Your task to perform on an android device: remove spam from my inbox in the gmail app Image 0: 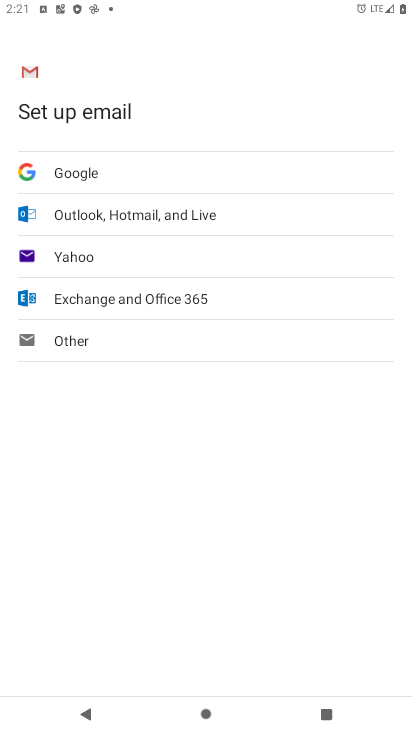
Step 0: press home button
Your task to perform on an android device: remove spam from my inbox in the gmail app Image 1: 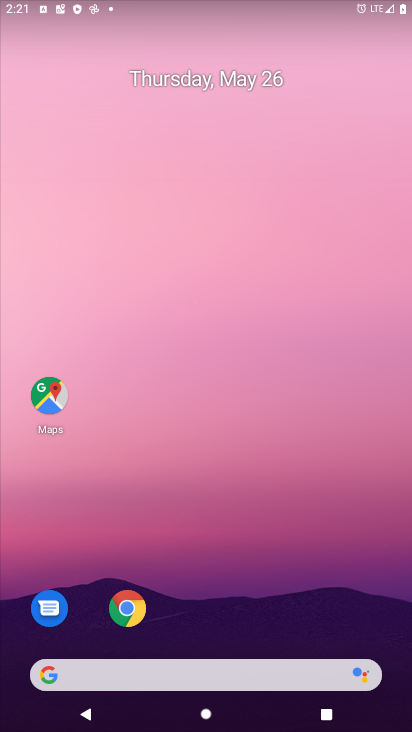
Step 1: drag from (395, 622) to (323, 56)
Your task to perform on an android device: remove spam from my inbox in the gmail app Image 2: 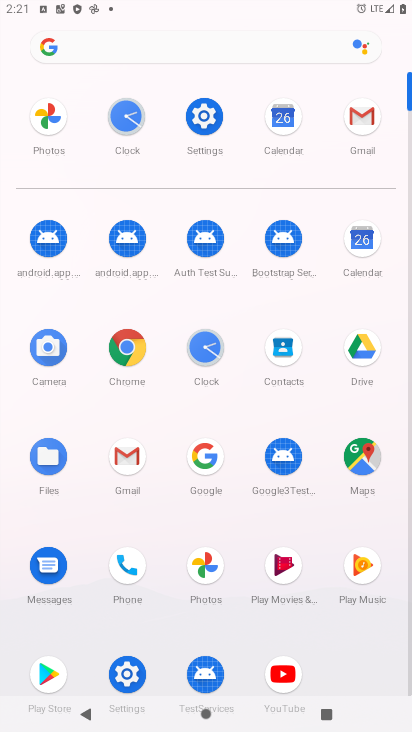
Step 2: click (125, 452)
Your task to perform on an android device: remove spam from my inbox in the gmail app Image 3: 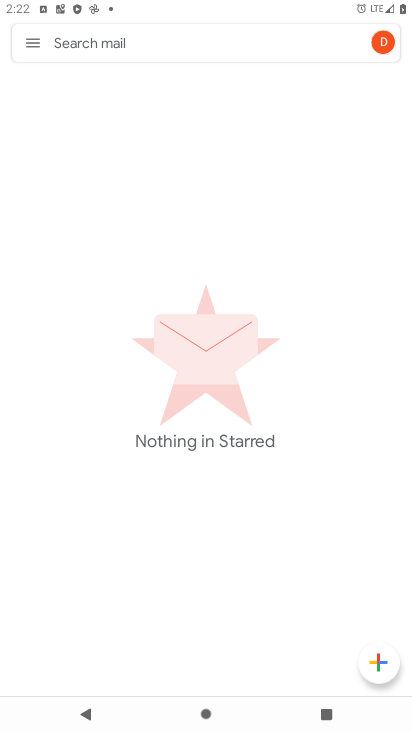
Step 3: click (33, 42)
Your task to perform on an android device: remove spam from my inbox in the gmail app Image 4: 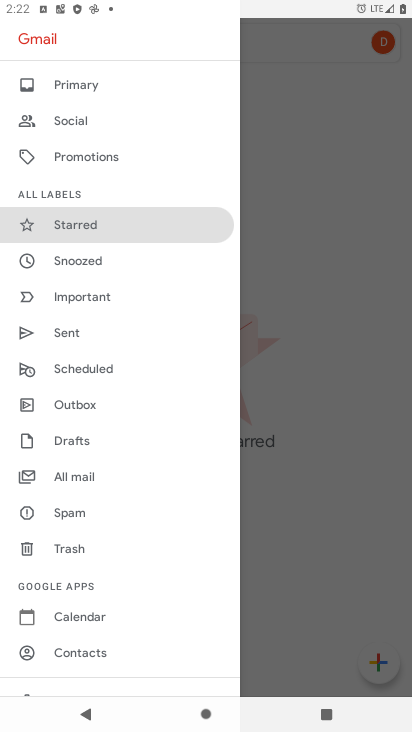
Step 4: click (77, 507)
Your task to perform on an android device: remove spam from my inbox in the gmail app Image 5: 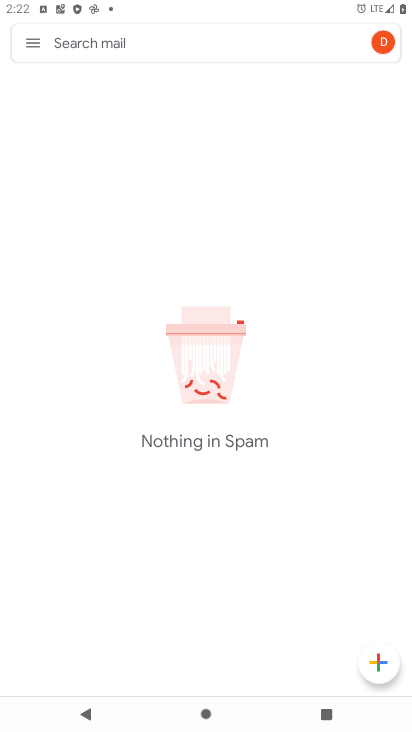
Step 5: task complete